Your task to perform on an android device: clear history in the chrome app Image 0: 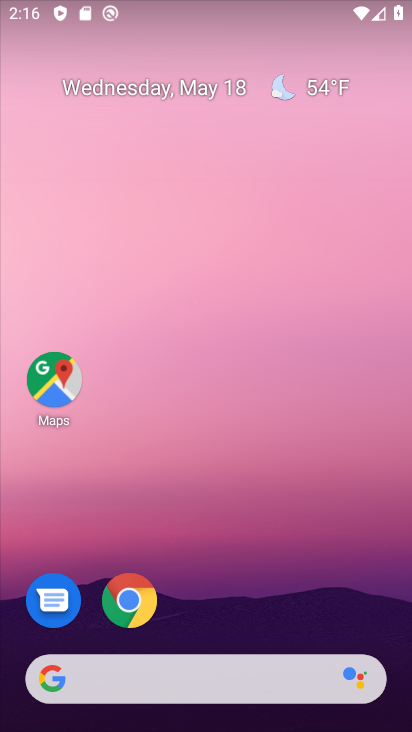
Step 0: press home button
Your task to perform on an android device: clear history in the chrome app Image 1: 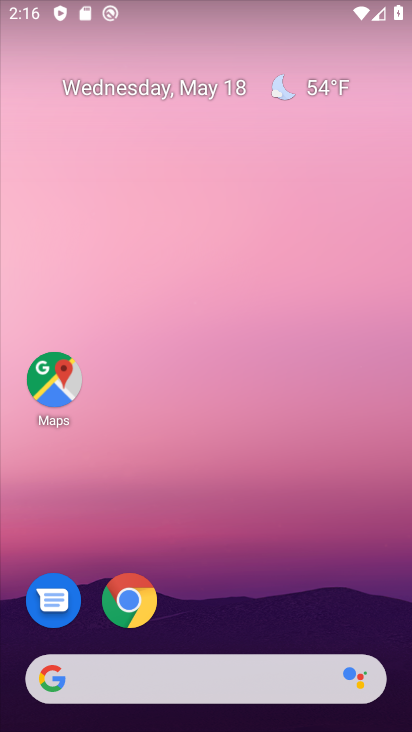
Step 1: click (136, 610)
Your task to perform on an android device: clear history in the chrome app Image 2: 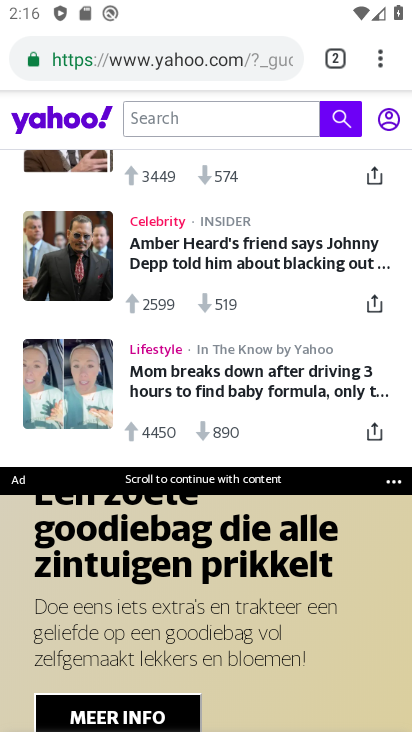
Step 2: drag from (379, 60) to (229, 342)
Your task to perform on an android device: clear history in the chrome app Image 3: 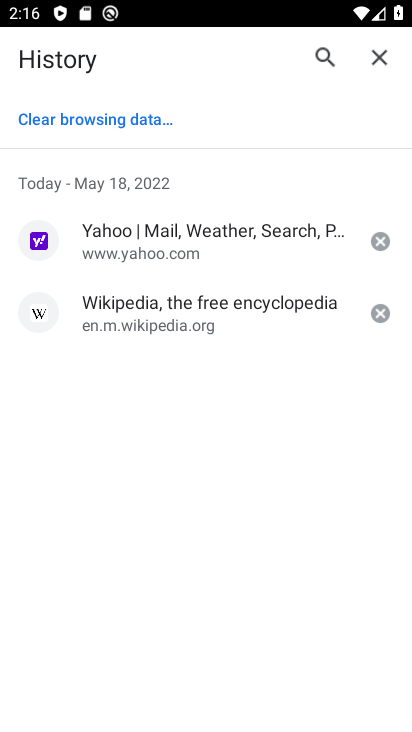
Step 3: click (86, 118)
Your task to perform on an android device: clear history in the chrome app Image 4: 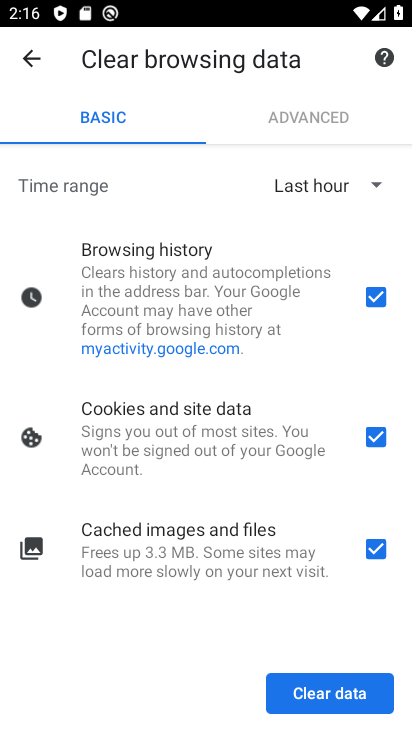
Step 4: click (321, 698)
Your task to perform on an android device: clear history in the chrome app Image 5: 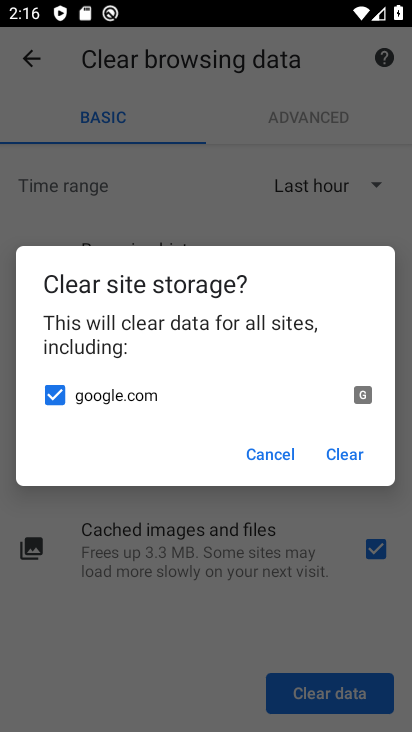
Step 5: click (350, 451)
Your task to perform on an android device: clear history in the chrome app Image 6: 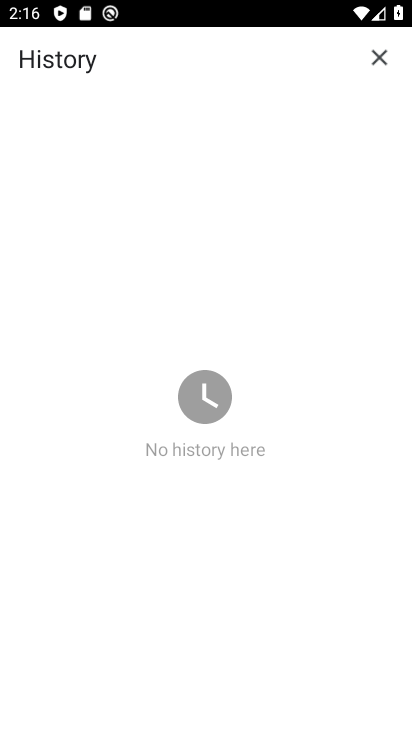
Step 6: task complete